Your task to perform on an android device: Is it going to rain today? Image 0: 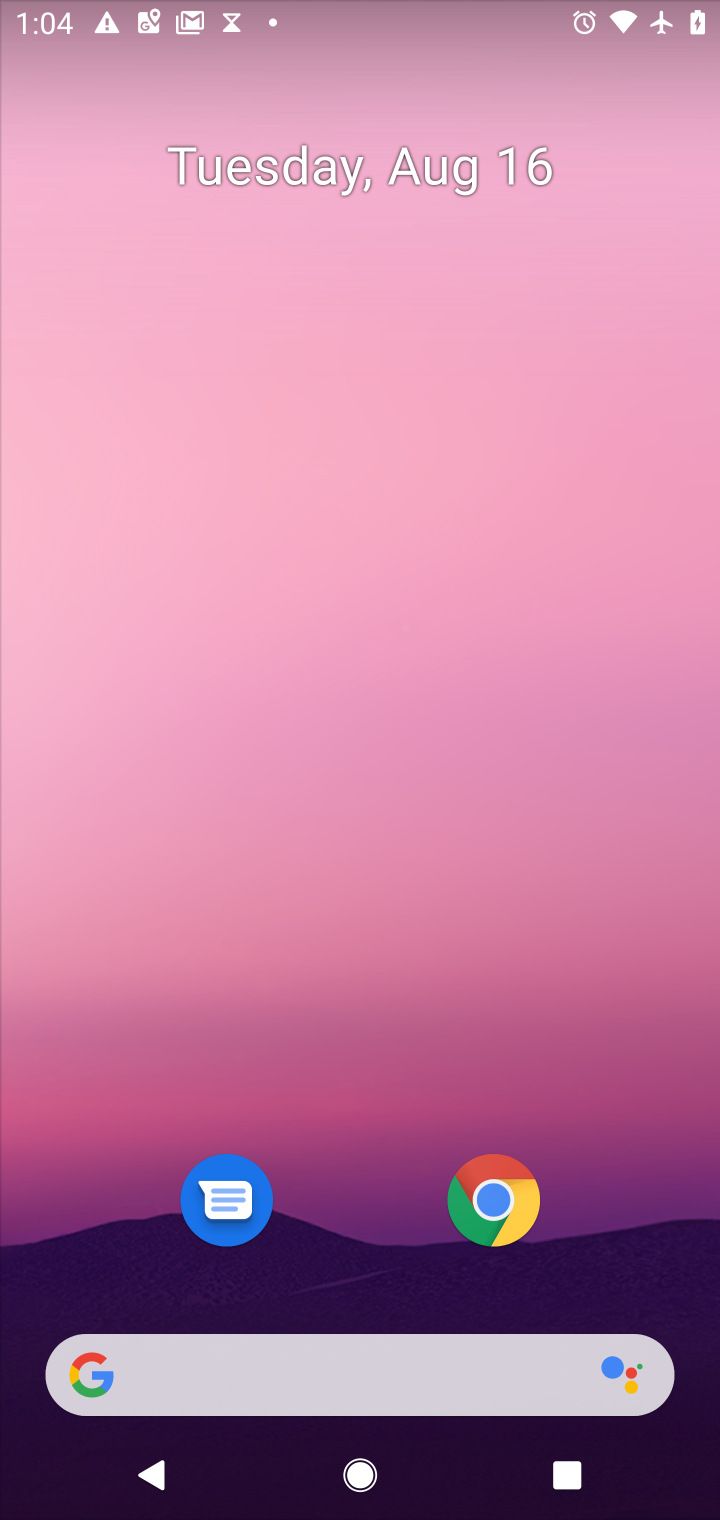
Step 0: drag from (321, 1284) to (293, 552)
Your task to perform on an android device: Is it going to rain today? Image 1: 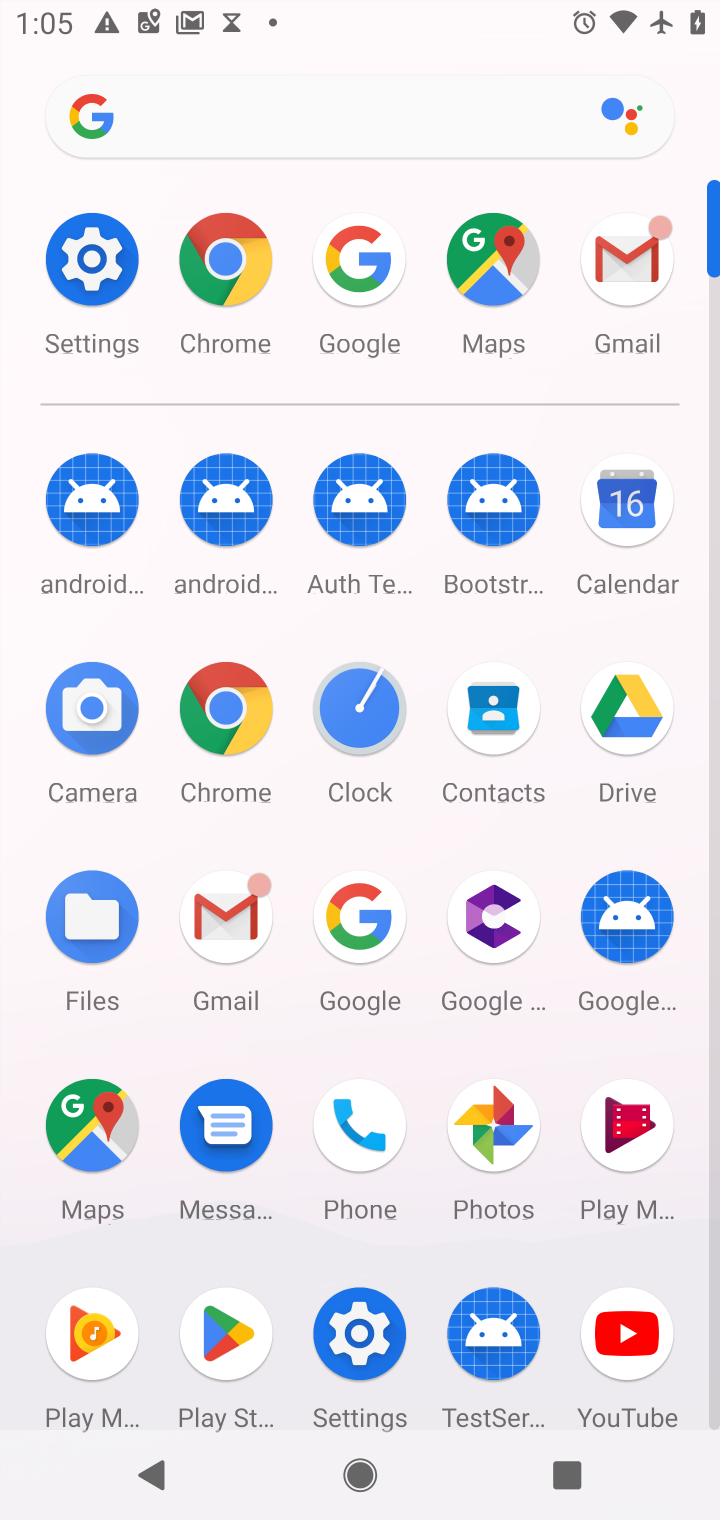
Step 1: click (328, 899)
Your task to perform on an android device: Is it going to rain today? Image 2: 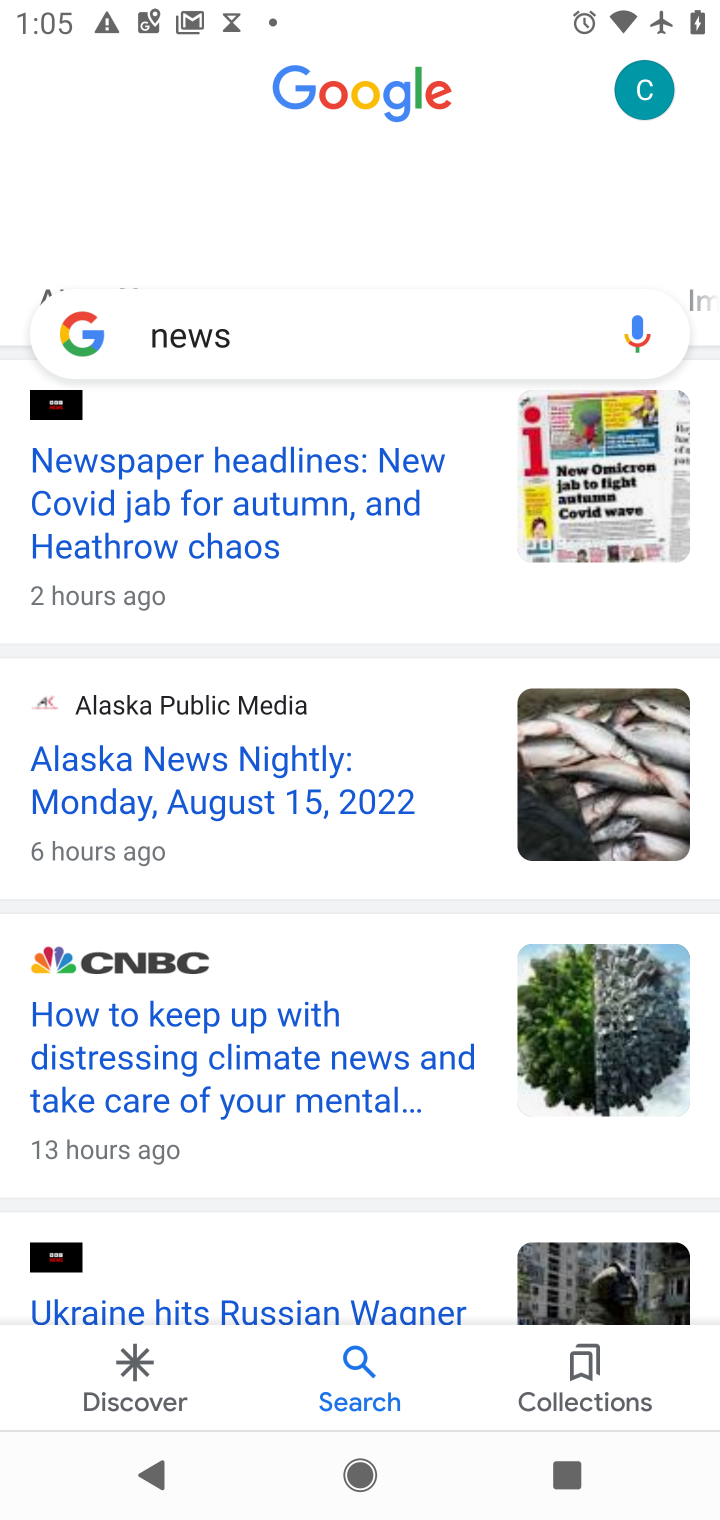
Step 2: click (352, 331)
Your task to perform on an android device: Is it going to rain today? Image 3: 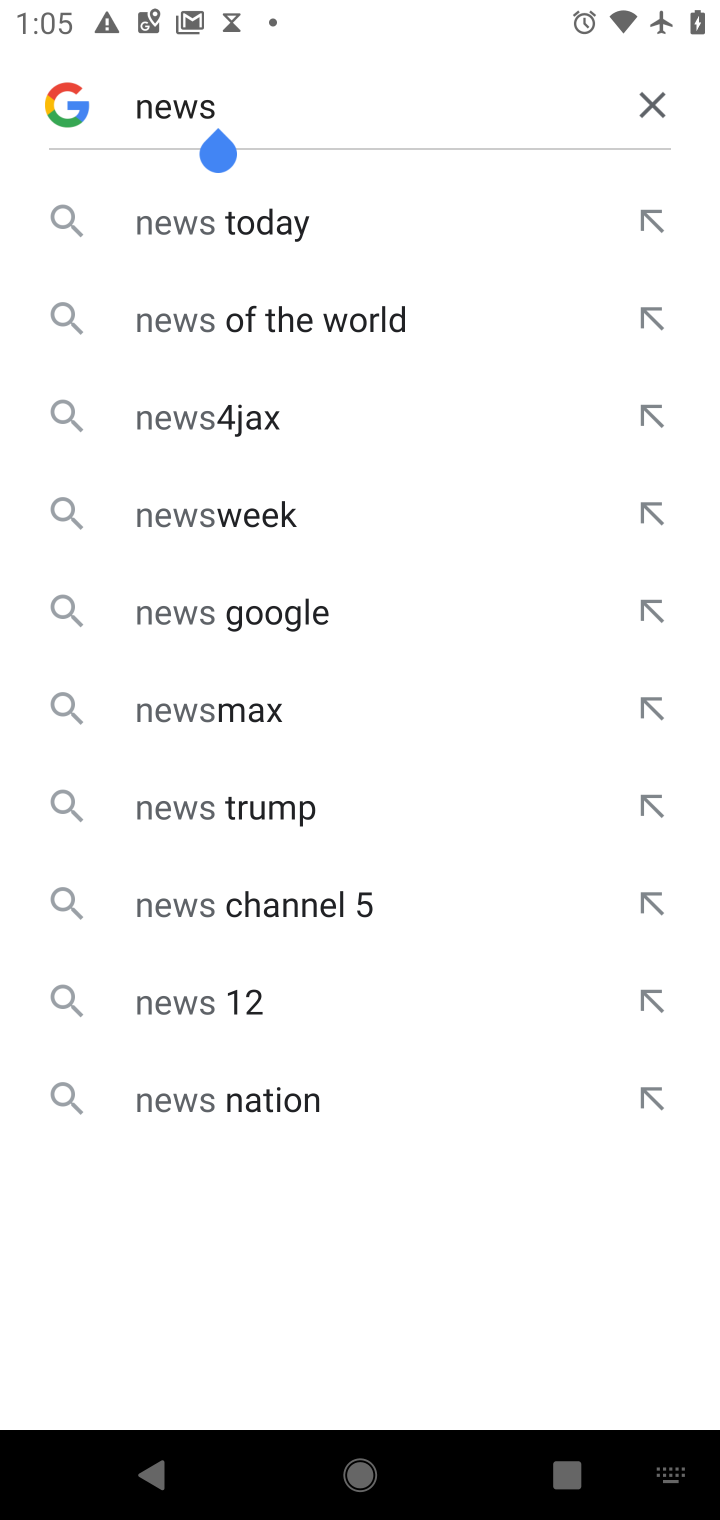
Step 3: click (621, 100)
Your task to perform on an android device: Is it going to rain today? Image 4: 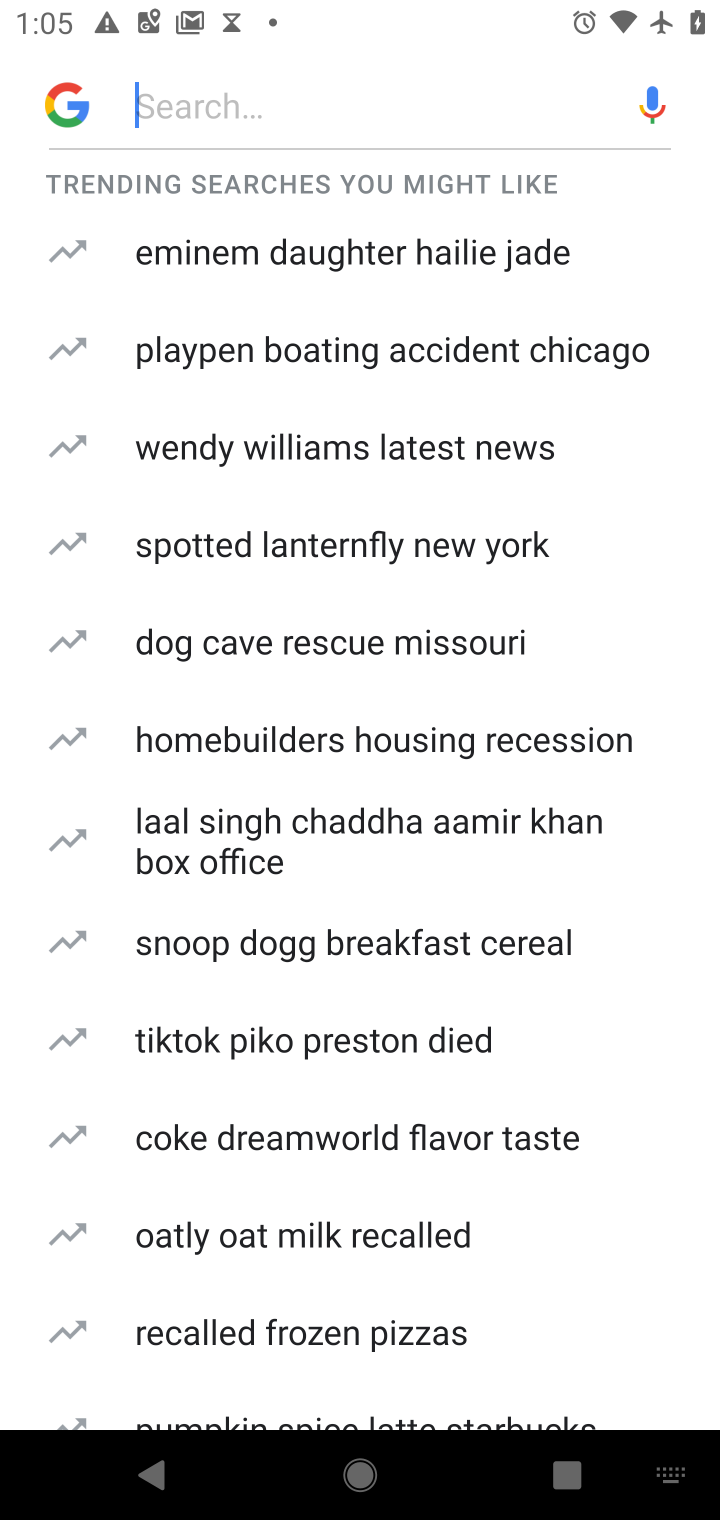
Step 4: type "weather"
Your task to perform on an android device: Is it going to rain today? Image 5: 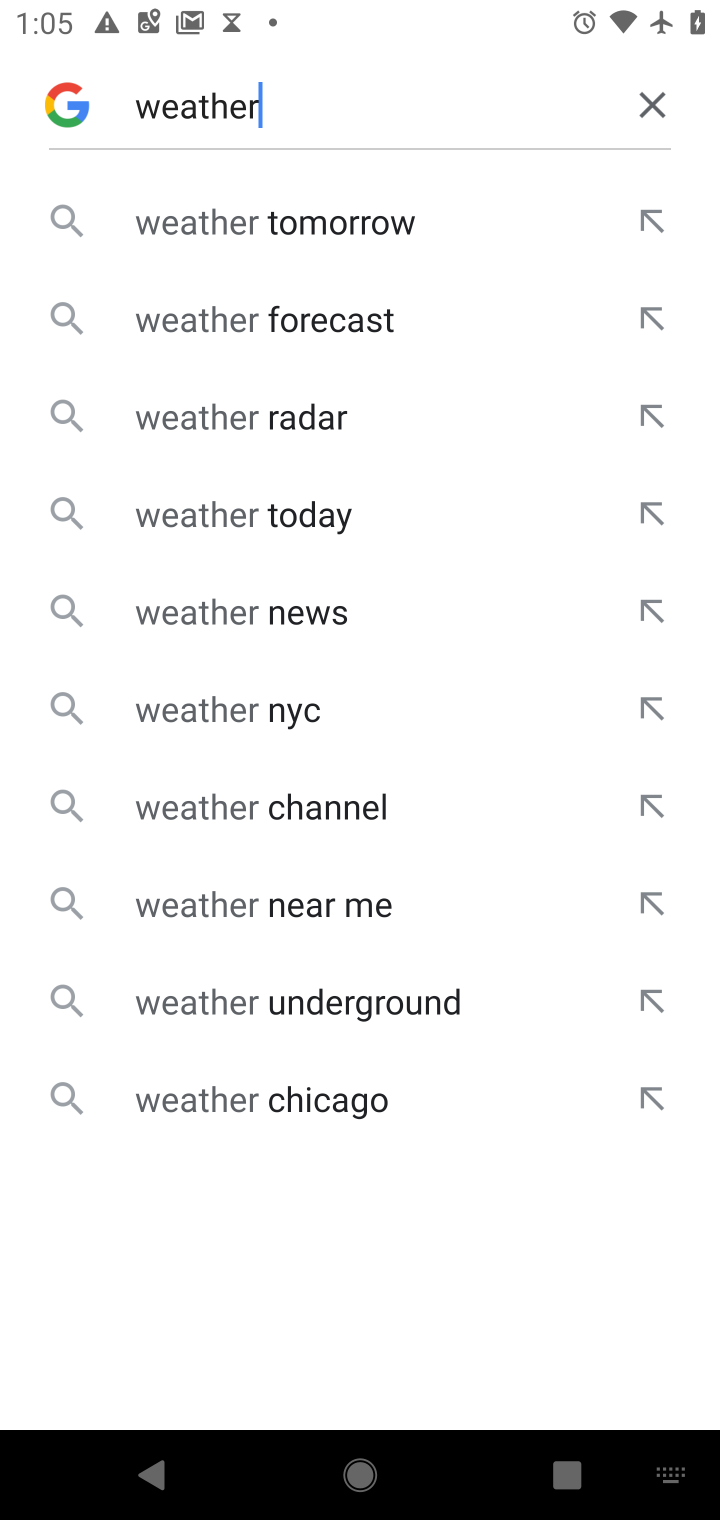
Step 5: click (322, 499)
Your task to perform on an android device: Is it going to rain today? Image 6: 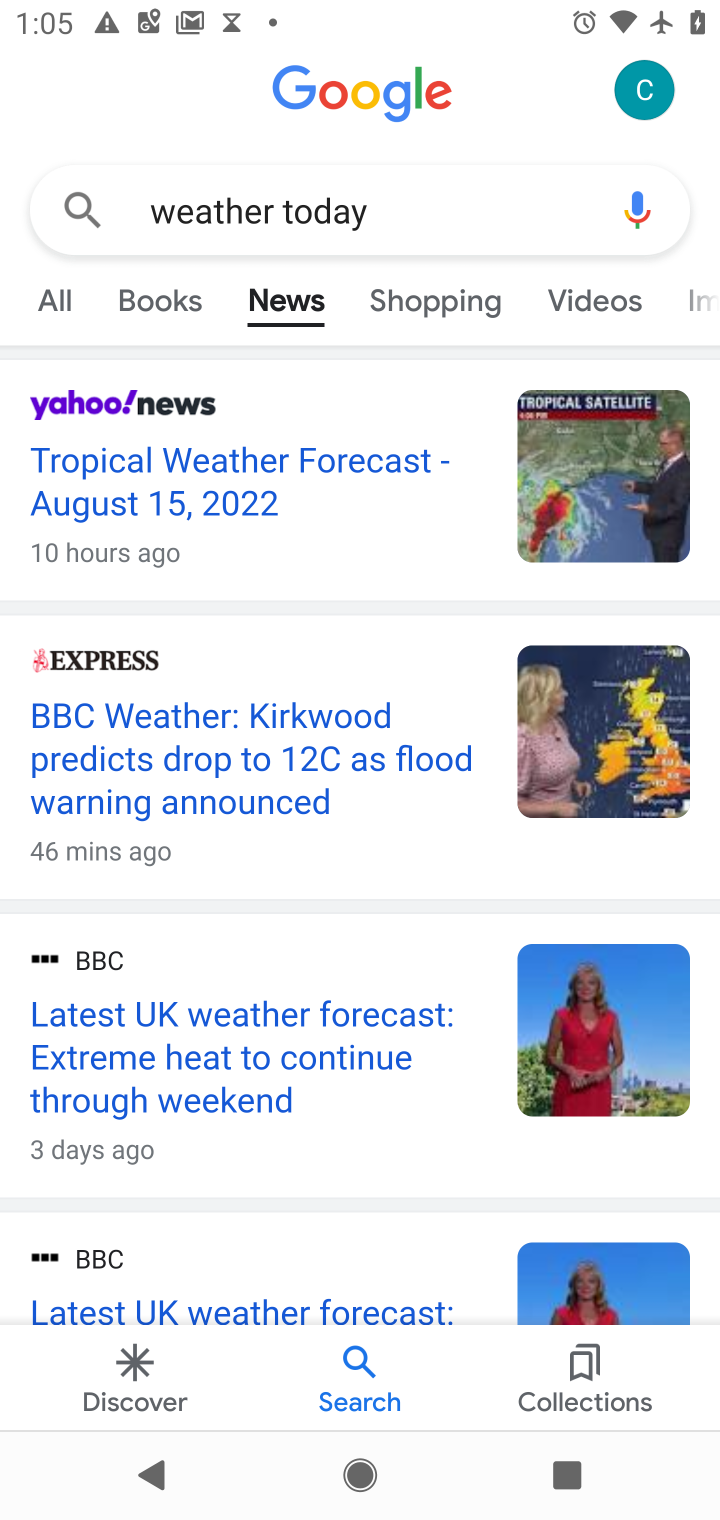
Step 6: click (45, 292)
Your task to perform on an android device: Is it going to rain today? Image 7: 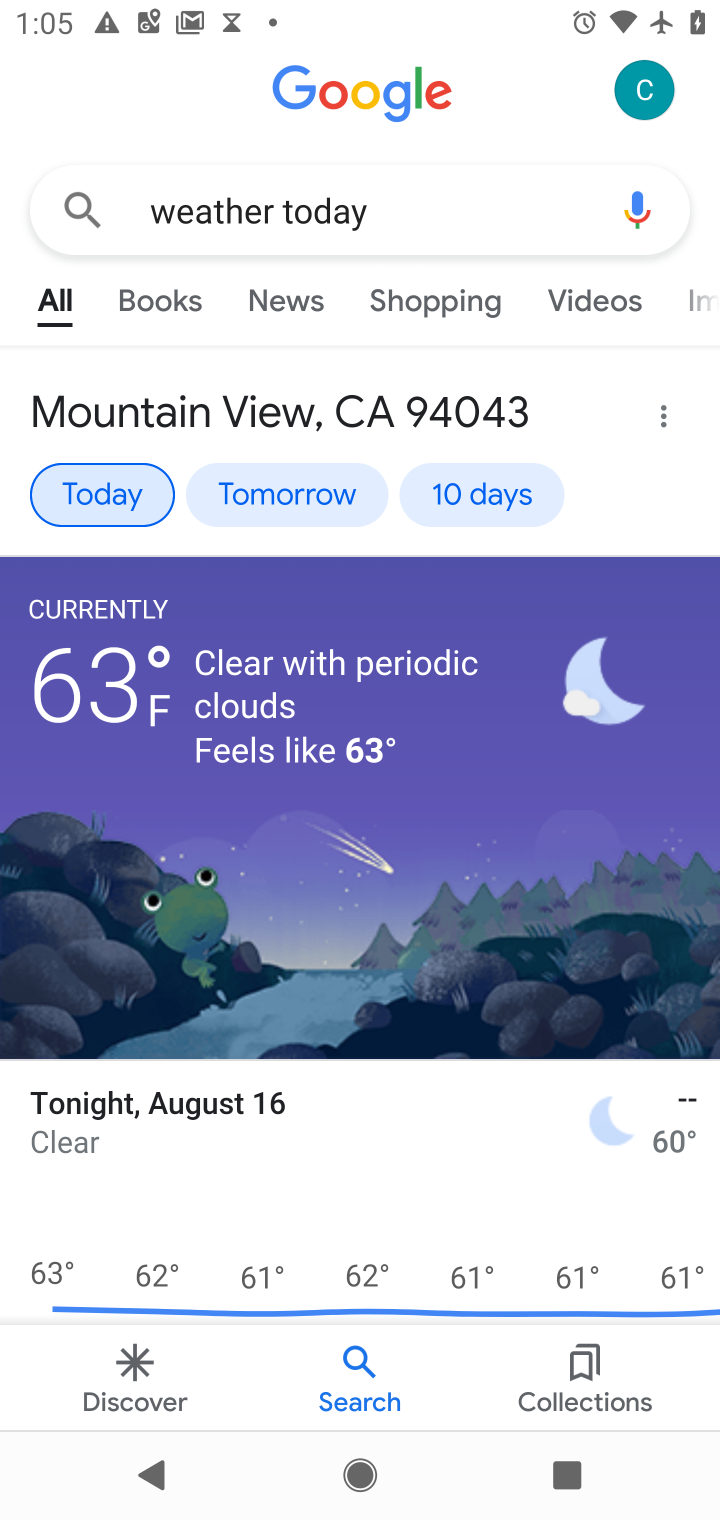
Step 7: task complete